Your task to perform on an android device: change your default location settings in chrome Image 0: 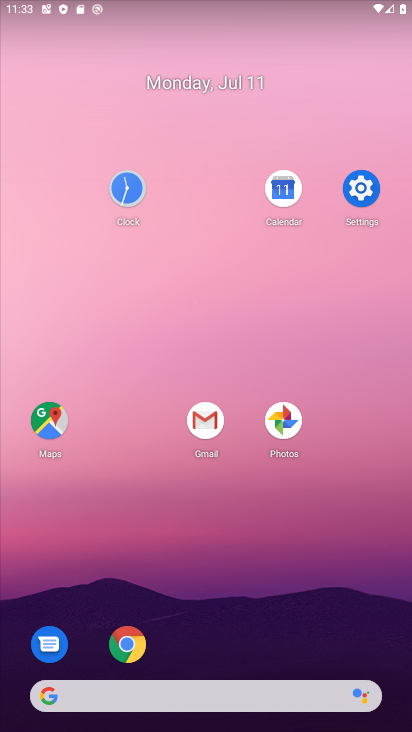
Step 0: click (131, 648)
Your task to perform on an android device: change your default location settings in chrome Image 1: 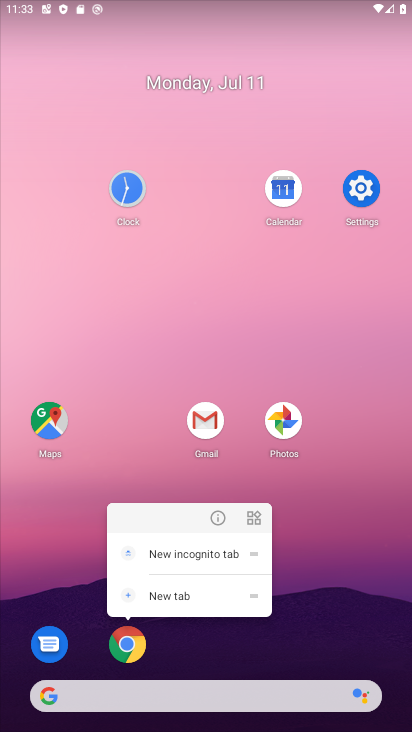
Step 1: click (131, 648)
Your task to perform on an android device: change your default location settings in chrome Image 2: 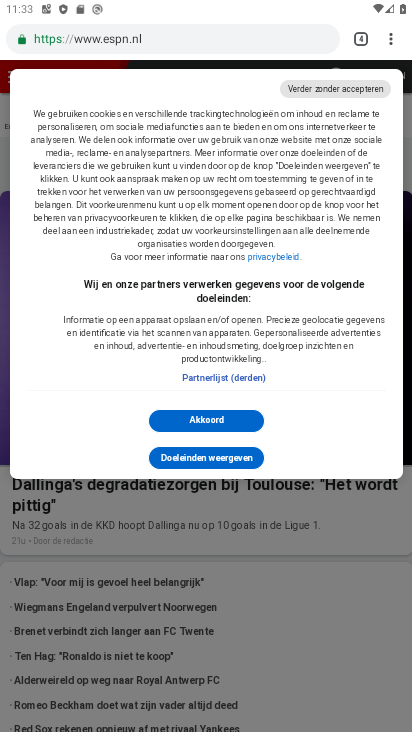
Step 2: click (398, 35)
Your task to perform on an android device: change your default location settings in chrome Image 3: 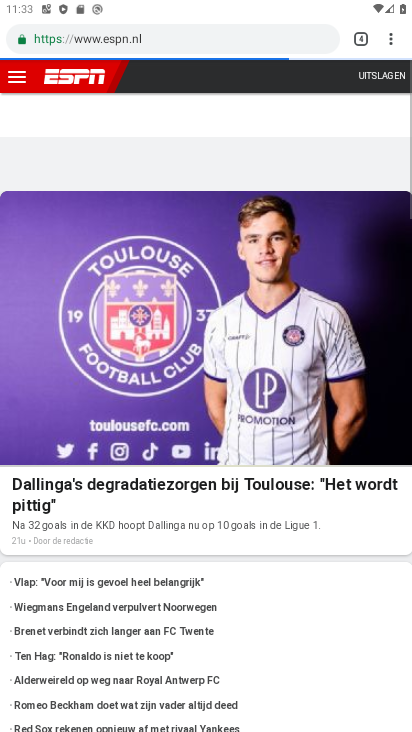
Step 3: click (387, 36)
Your task to perform on an android device: change your default location settings in chrome Image 4: 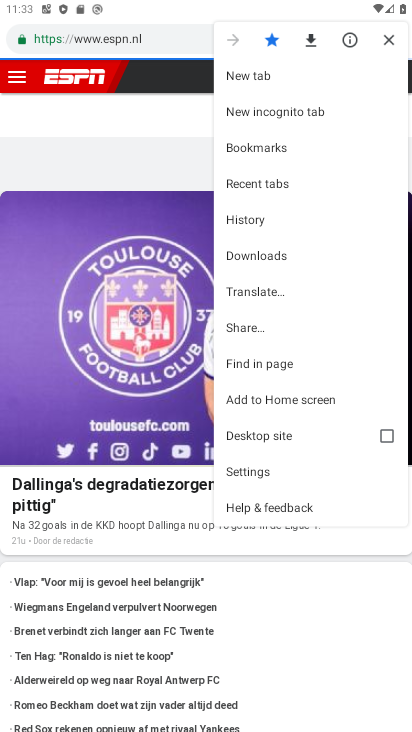
Step 4: click (283, 464)
Your task to perform on an android device: change your default location settings in chrome Image 5: 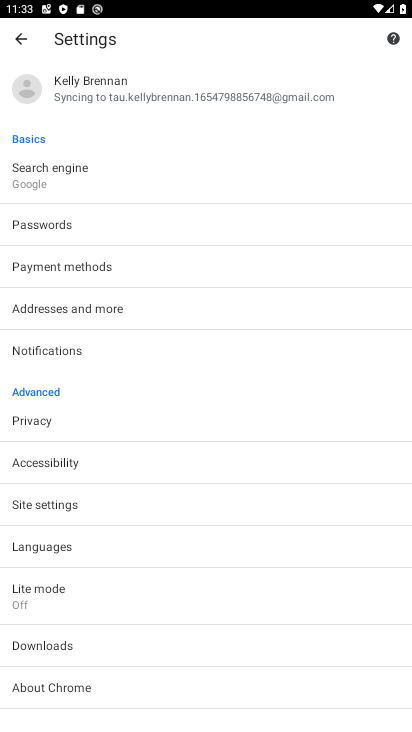
Step 5: drag from (167, 527) to (198, 324)
Your task to perform on an android device: change your default location settings in chrome Image 6: 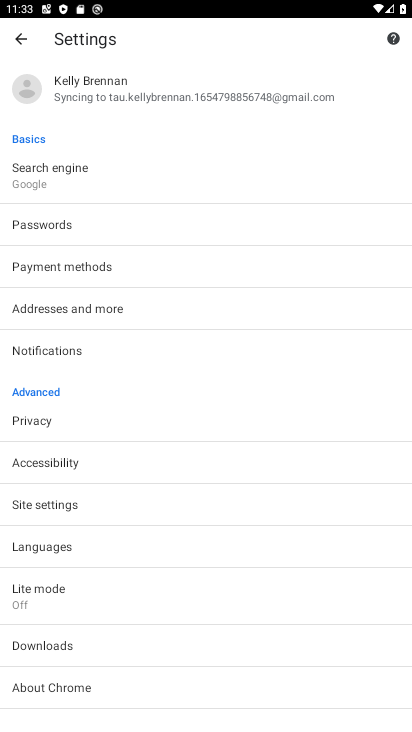
Step 6: click (138, 513)
Your task to perform on an android device: change your default location settings in chrome Image 7: 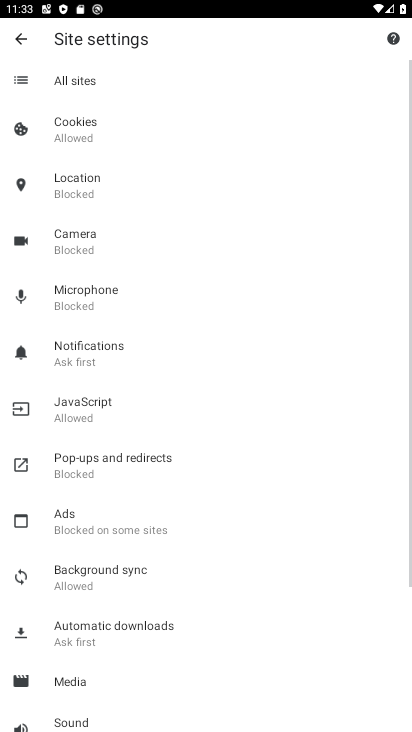
Step 7: click (148, 175)
Your task to perform on an android device: change your default location settings in chrome Image 8: 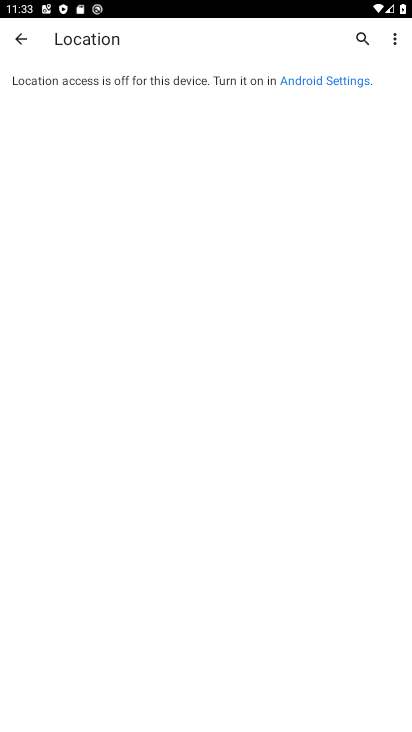
Step 8: click (311, 80)
Your task to perform on an android device: change your default location settings in chrome Image 9: 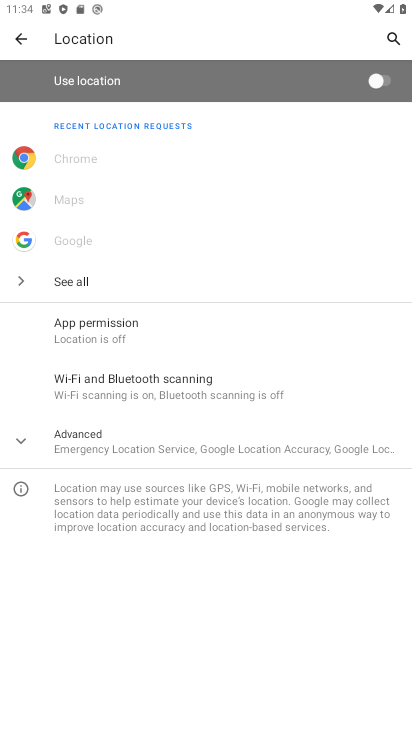
Step 9: click (378, 83)
Your task to perform on an android device: change your default location settings in chrome Image 10: 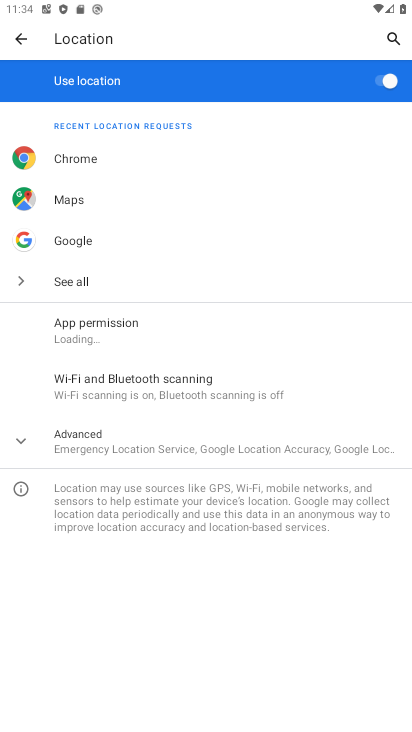
Step 10: task complete